Your task to perform on an android device: Toggle the flashlight Image 0: 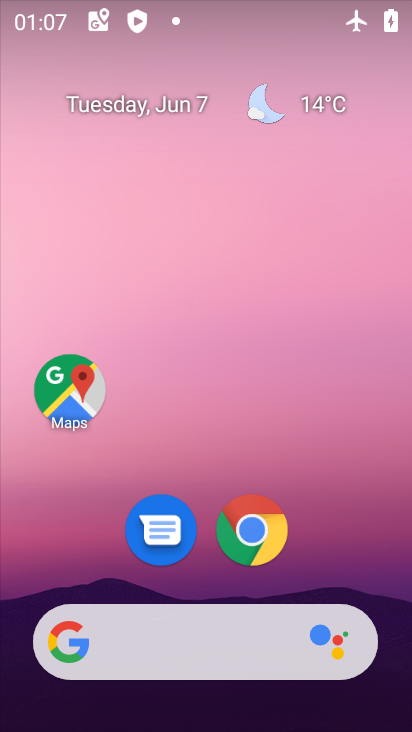
Step 0: drag from (326, 553) to (280, 229)
Your task to perform on an android device: Toggle the flashlight Image 1: 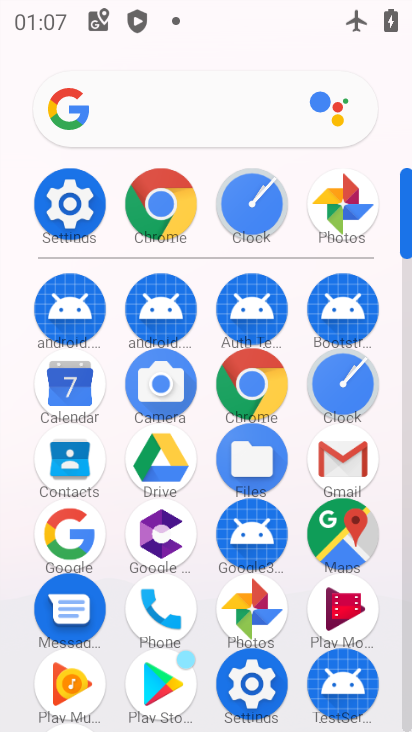
Step 1: click (74, 200)
Your task to perform on an android device: Toggle the flashlight Image 2: 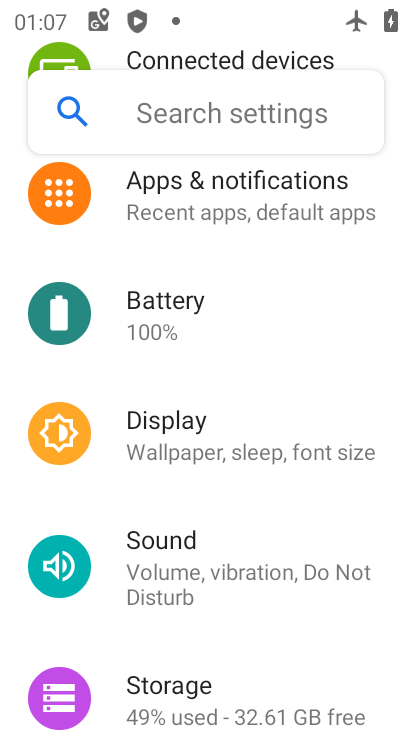
Step 2: task complete